Your task to perform on an android device: Go to notification settings Image 0: 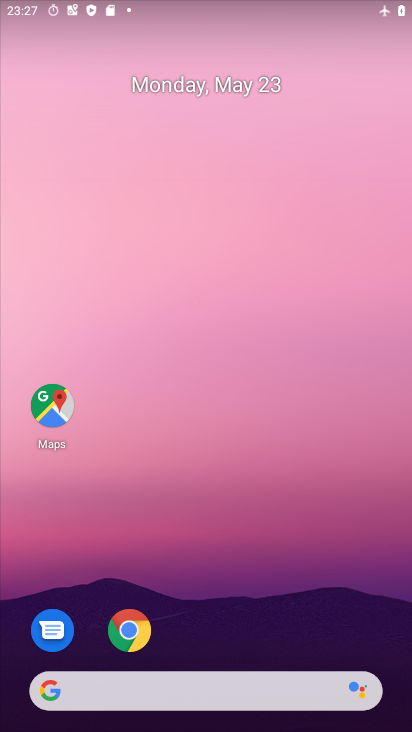
Step 0: drag from (264, 657) to (382, 2)
Your task to perform on an android device: Go to notification settings Image 1: 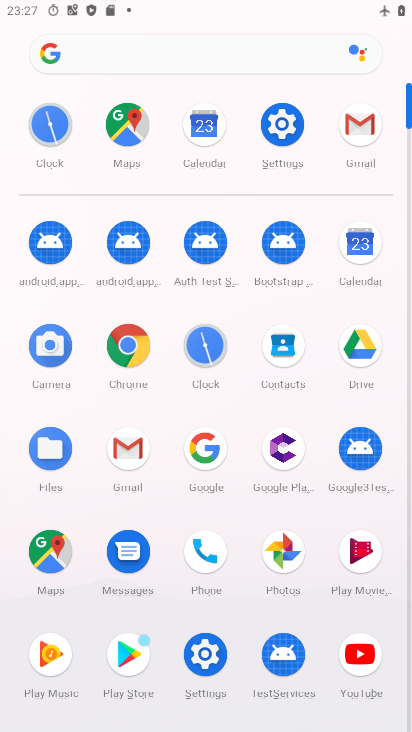
Step 1: click (279, 121)
Your task to perform on an android device: Go to notification settings Image 2: 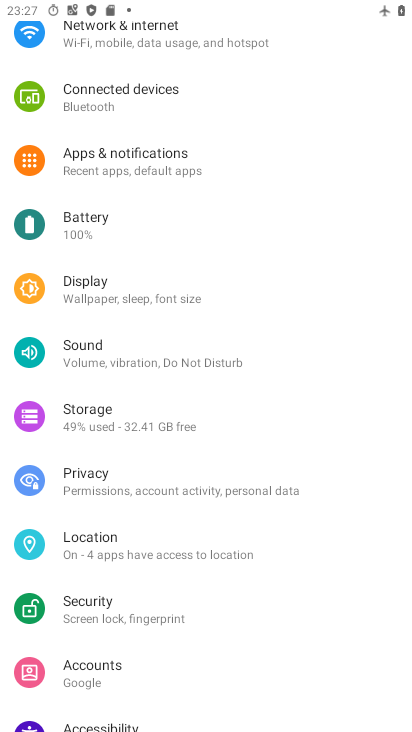
Step 2: click (119, 167)
Your task to perform on an android device: Go to notification settings Image 3: 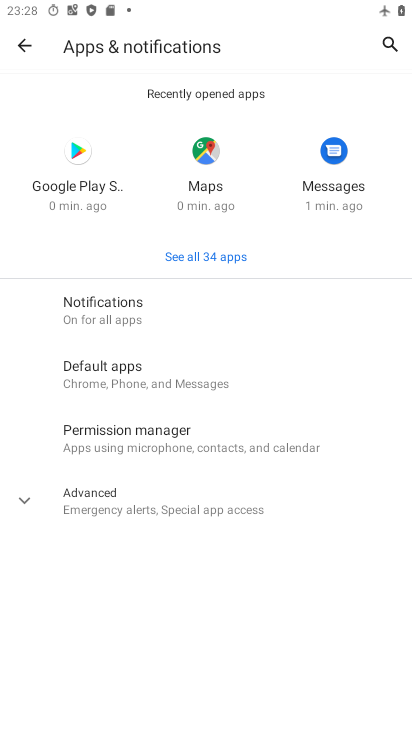
Step 3: task complete